Your task to perform on an android device: Go to accessibility settings Image 0: 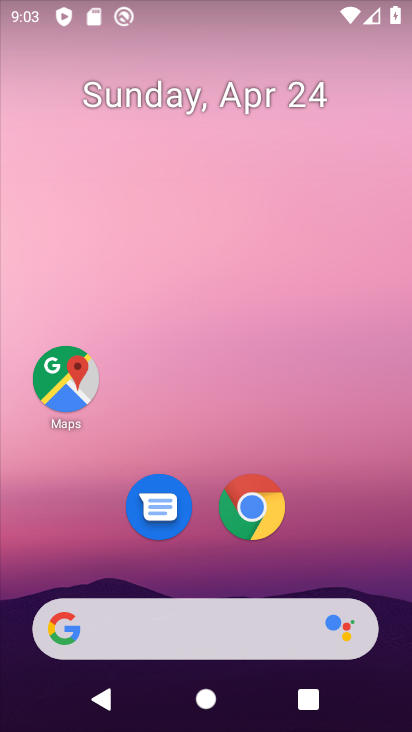
Step 0: drag from (350, 498) to (345, 1)
Your task to perform on an android device: Go to accessibility settings Image 1: 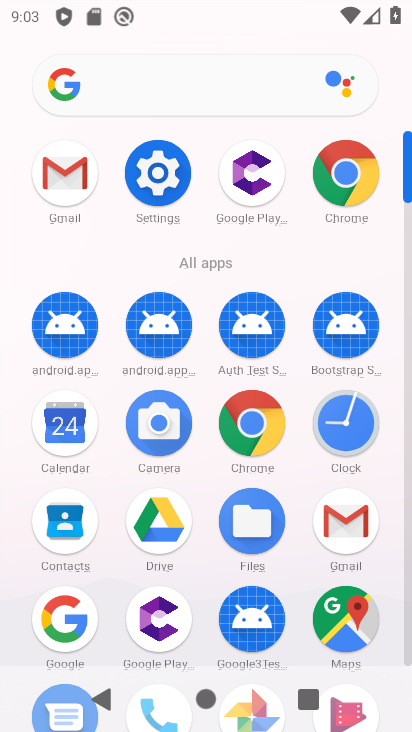
Step 1: click (131, 169)
Your task to perform on an android device: Go to accessibility settings Image 2: 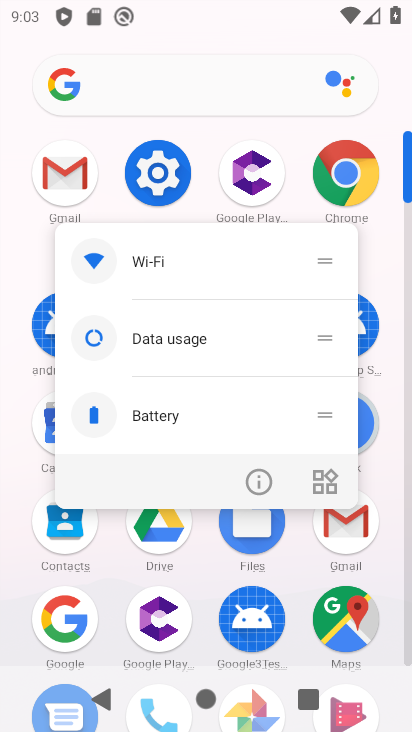
Step 2: click (162, 178)
Your task to perform on an android device: Go to accessibility settings Image 3: 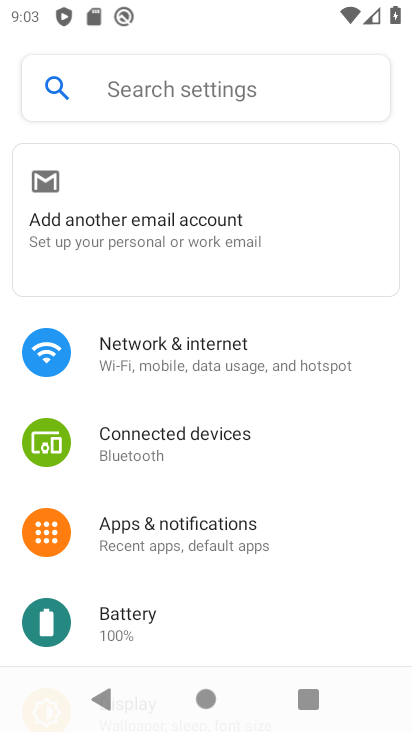
Step 3: drag from (217, 434) to (241, 242)
Your task to perform on an android device: Go to accessibility settings Image 4: 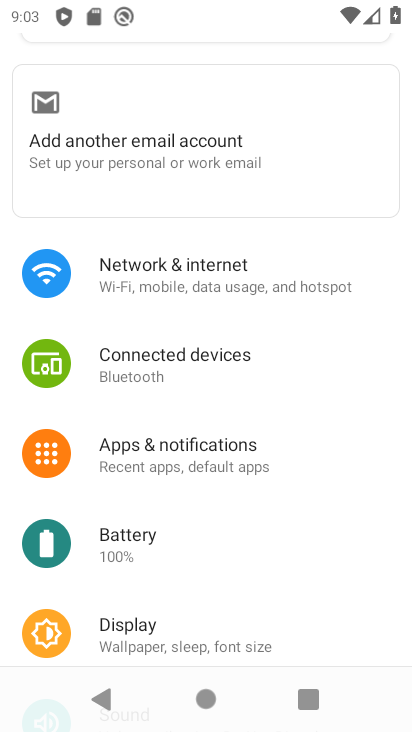
Step 4: drag from (291, 554) to (319, 225)
Your task to perform on an android device: Go to accessibility settings Image 5: 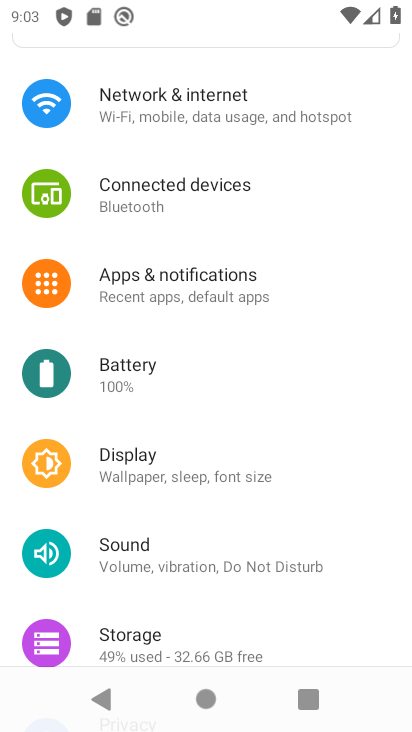
Step 5: drag from (252, 615) to (268, 270)
Your task to perform on an android device: Go to accessibility settings Image 6: 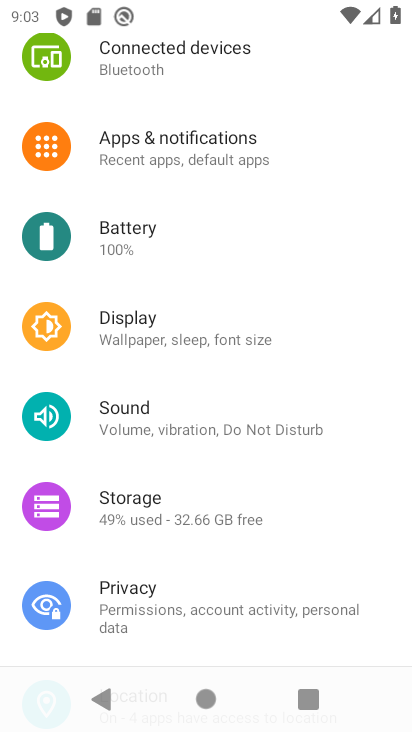
Step 6: drag from (280, 529) to (281, 176)
Your task to perform on an android device: Go to accessibility settings Image 7: 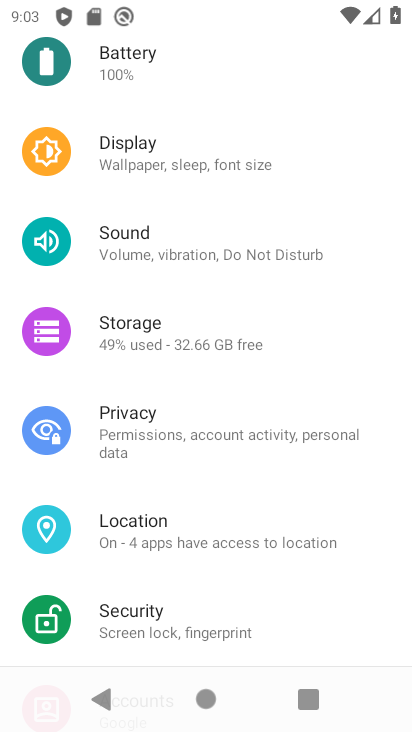
Step 7: drag from (233, 549) to (273, 122)
Your task to perform on an android device: Go to accessibility settings Image 8: 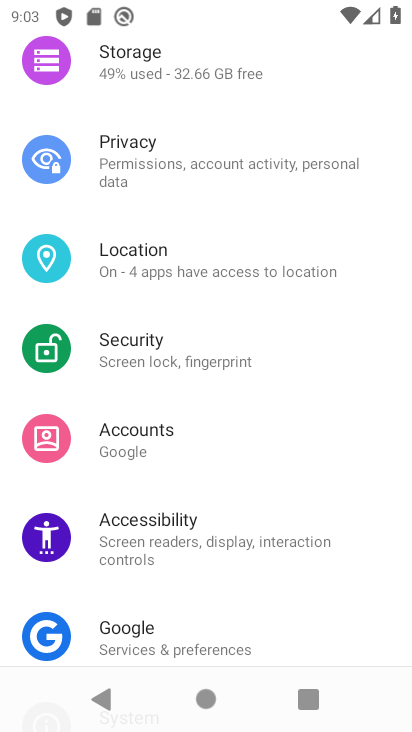
Step 8: click (187, 538)
Your task to perform on an android device: Go to accessibility settings Image 9: 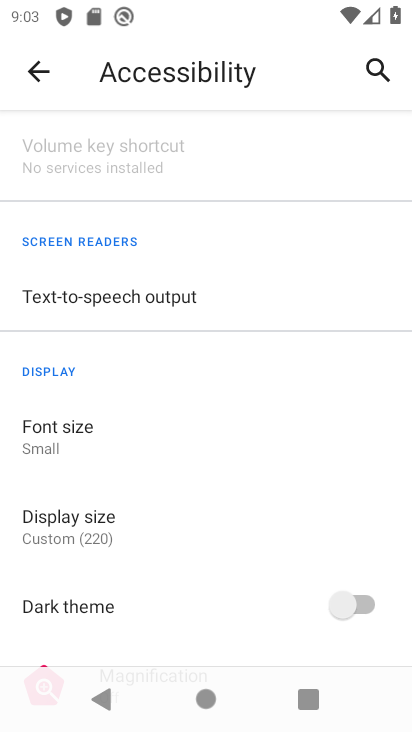
Step 9: task complete